Your task to perform on an android device: Is it going to rain this weekend? Image 0: 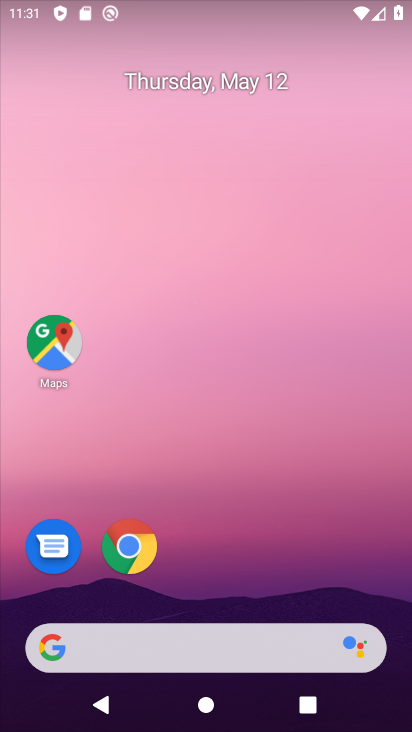
Step 0: drag from (224, 723) to (220, 125)
Your task to perform on an android device: Is it going to rain this weekend? Image 1: 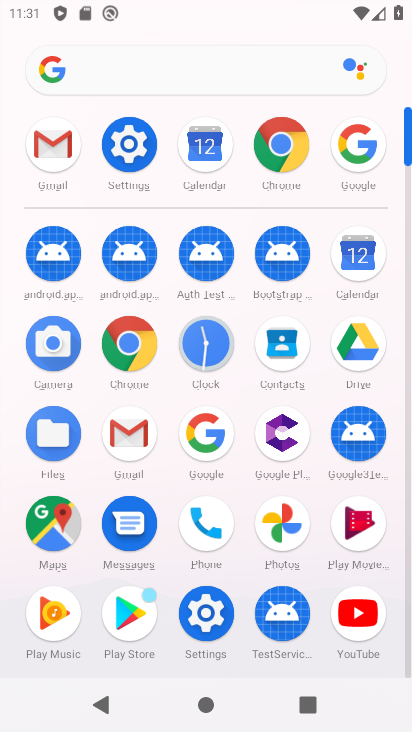
Step 1: click (209, 428)
Your task to perform on an android device: Is it going to rain this weekend? Image 2: 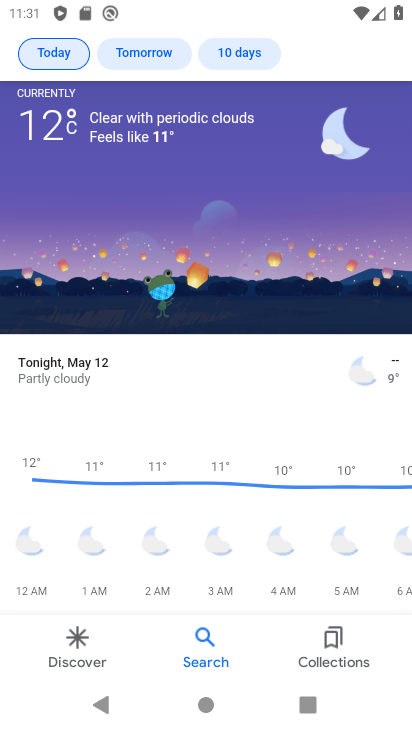
Step 2: click (241, 48)
Your task to perform on an android device: Is it going to rain this weekend? Image 3: 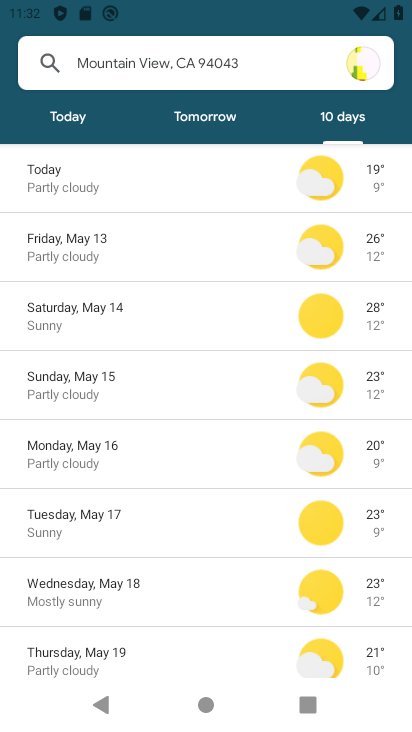
Step 3: click (65, 297)
Your task to perform on an android device: Is it going to rain this weekend? Image 4: 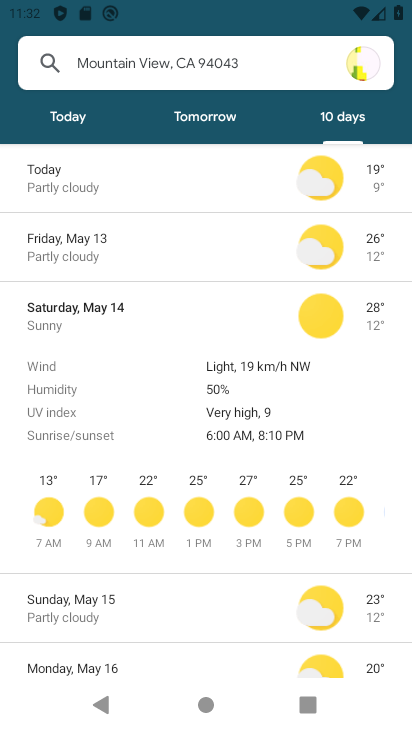
Step 4: task complete